Your task to perform on an android device: toggle airplane mode Image 0: 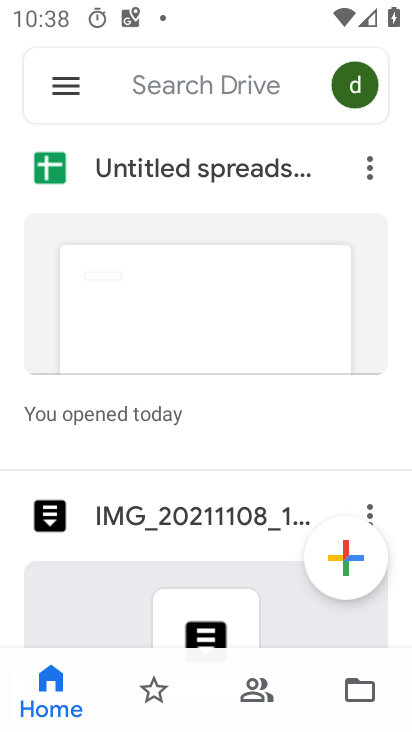
Step 0: press home button
Your task to perform on an android device: toggle airplane mode Image 1: 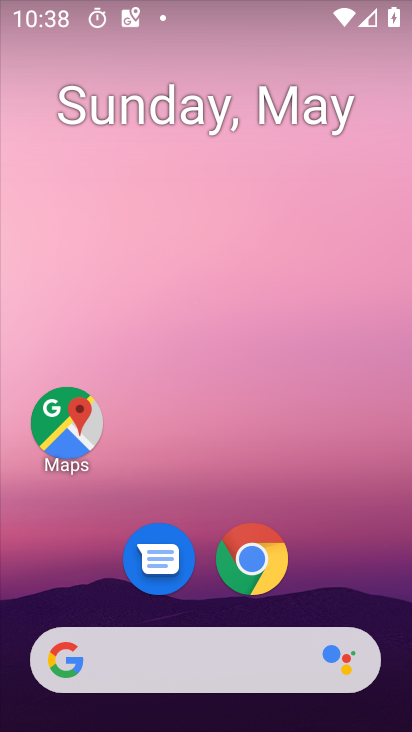
Step 1: drag from (345, 592) to (354, 99)
Your task to perform on an android device: toggle airplane mode Image 2: 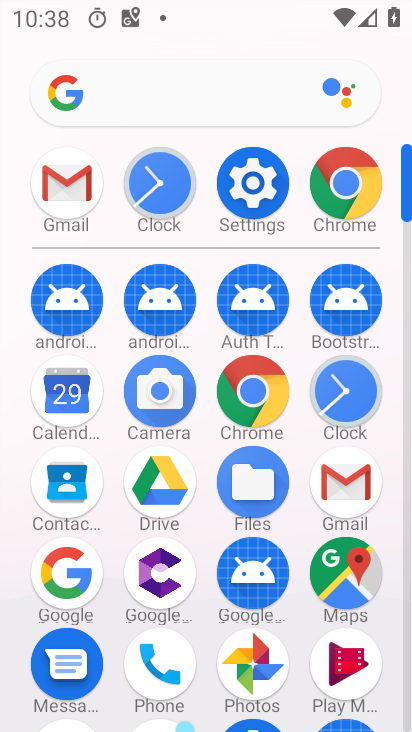
Step 2: drag from (287, 598) to (304, 317)
Your task to perform on an android device: toggle airplane mode Image 3: 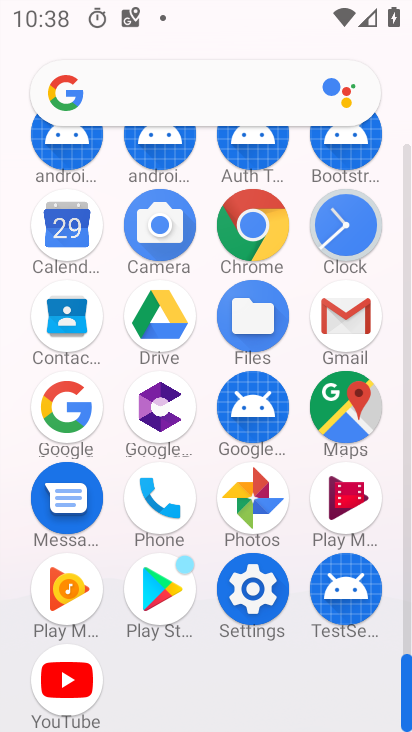
Step 3: click (268, 604)
Your task to perform on an android device: toggle airplane mode Image 4: 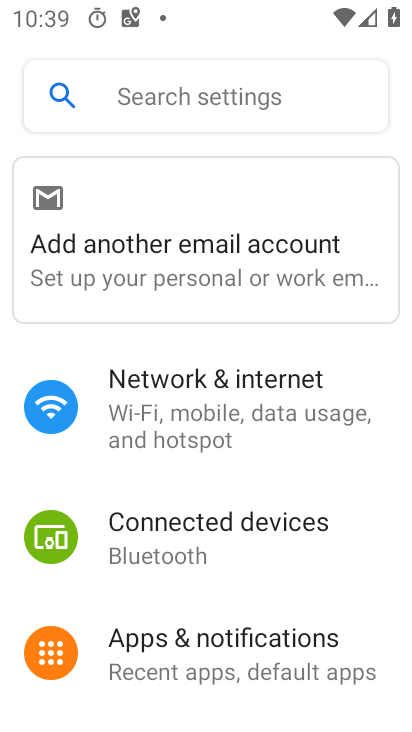
Step 4: click (220, 400)
Your task to perform on an android device: toggle airplane mode Image 5: 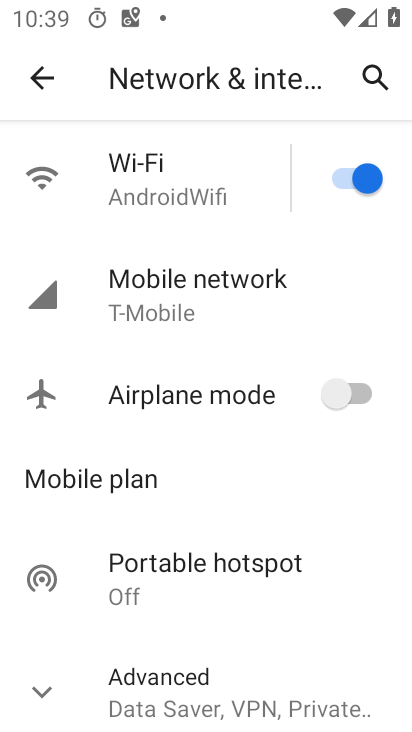
Step 5: click (370, 390)
Your task to perform on an android device: toggle airplane mode Image 6: 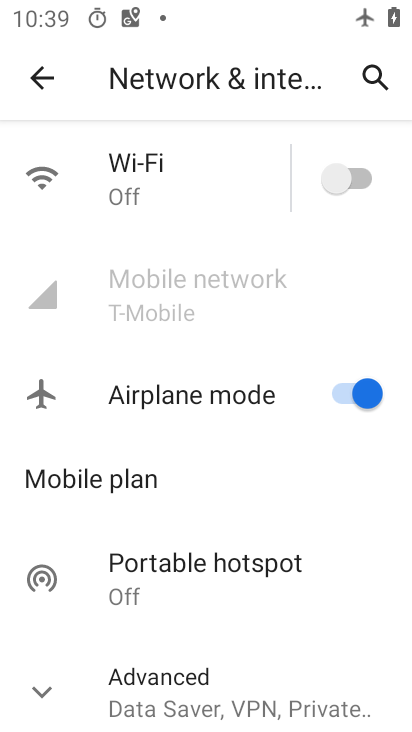
Step 6: task complete